Your task to perform on an android device: open wifi settings Image 0: 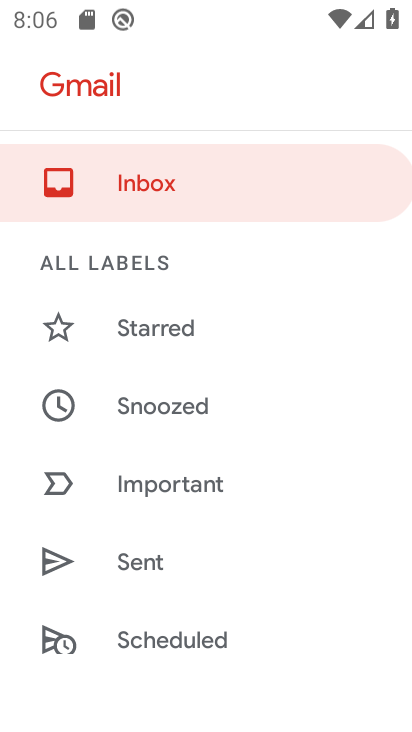
Step 0: press home button
Your task to perform on an android device: open wifi settings Image 1: 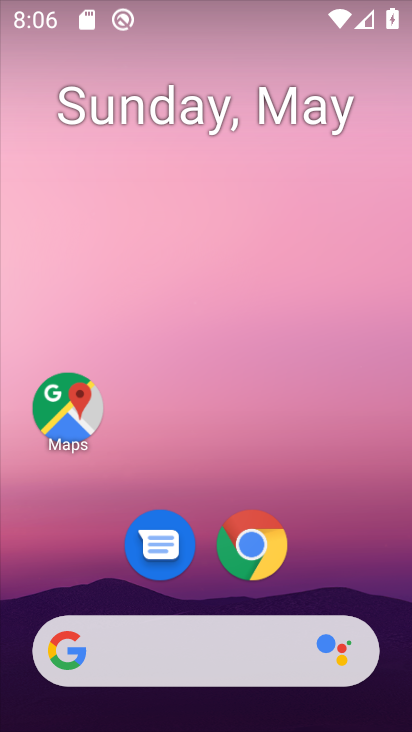
Step 1: drag from (33, 611) to (241, 5)
Your task to perform on an android device: open wifi settings Image 2: 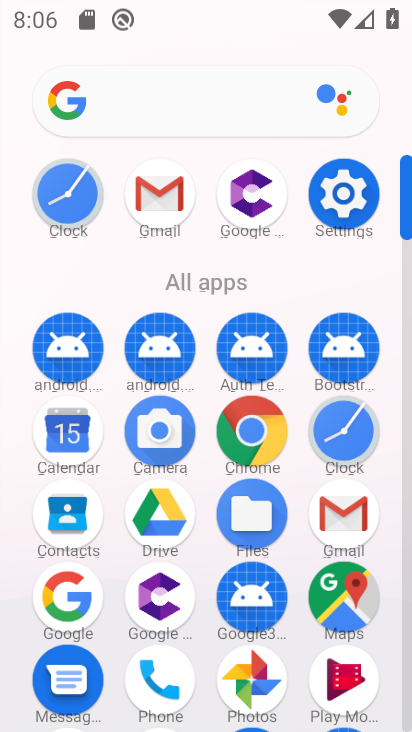
Step 2: click (339, 225)
Your task to perform on an android device: open wifi settings Image 3: 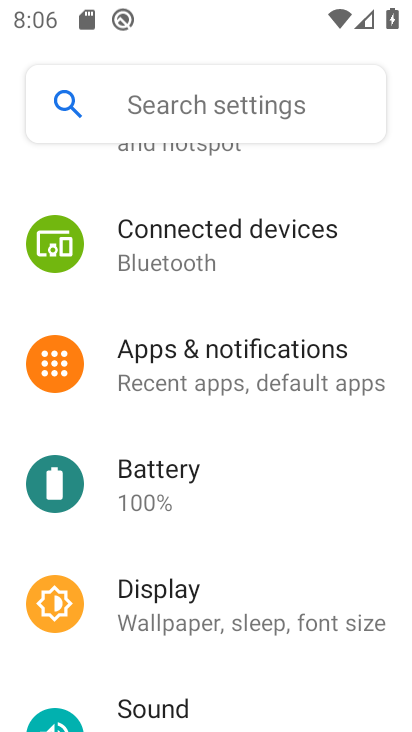
Step 3: drag from (249, 199) to (237, 614)
Your task to perform on an android device: open wifi settings Image 4: 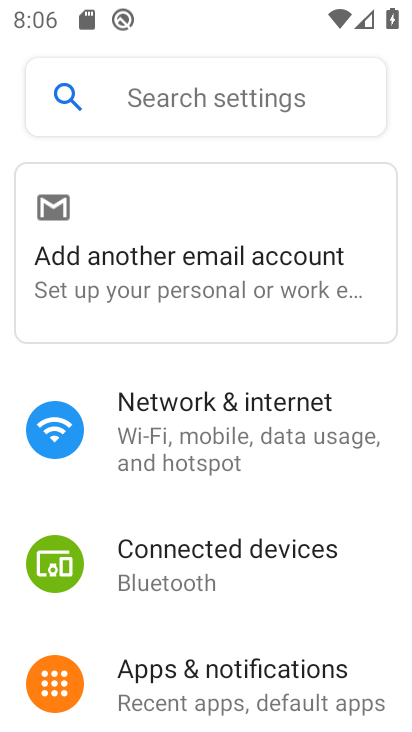
Step 4: click (214, 458)
Your task to perform on an android device: open wifi settings Image 5: 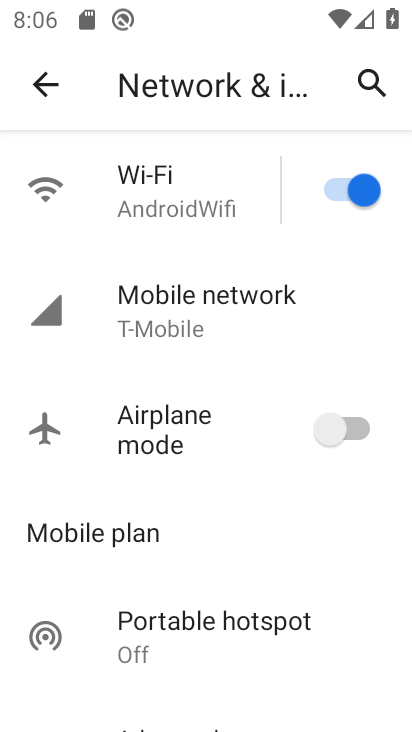
Step 5: click (152, 222)
Your task to perform on an android device: open wifi settings Image 6: 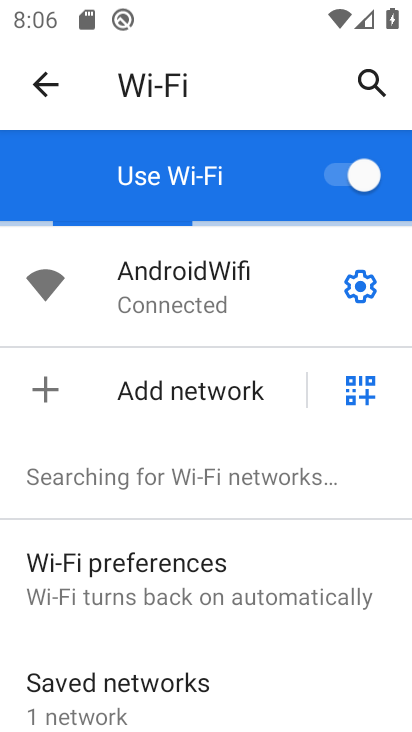
Step 6: task complete